Your task to perform on an android device: turn on priority inbox in the gmail app Image 0: 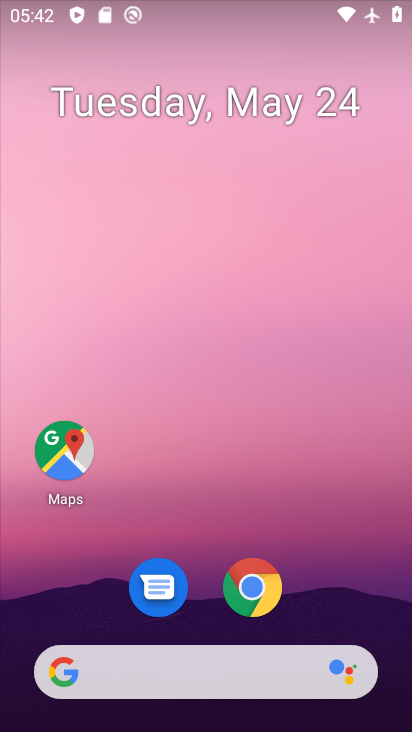
Step 0: drag from (346, 496) to (147, 1)
Your task to perform on an android device: turn on priority inbox in the gmail app Image 1: 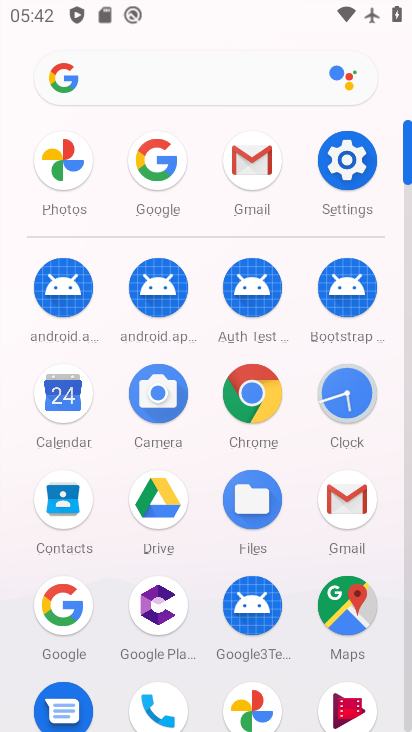
Step 1: click (253, 161)
Your task to perform on an android device: turn on priority inbox in the gmail app Image 2: 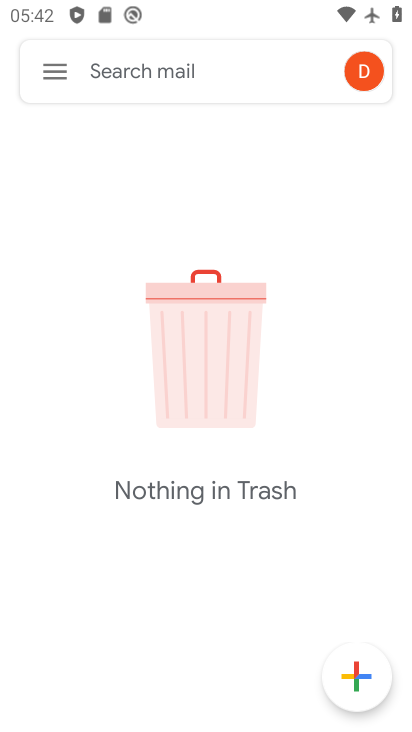
Step 2: click (40, 85)
Your task to perform on an android device: turn on priority inbox in the gmail app Image 3: 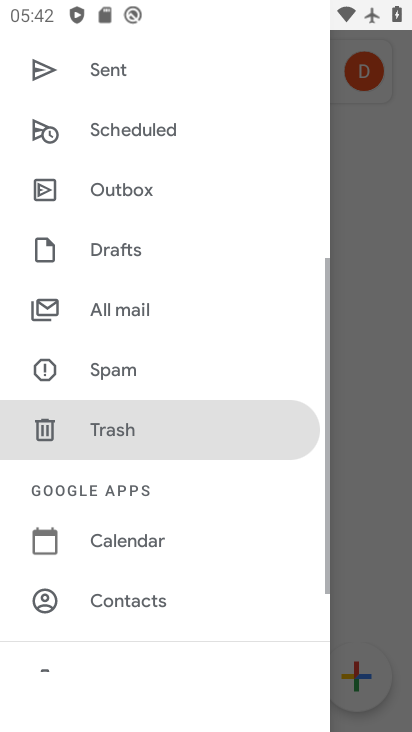
Step 3: drag from (193, 288) to (174, 95)
Your task to perform on an android device: turn on priority inbox in the gmail app Image 4: 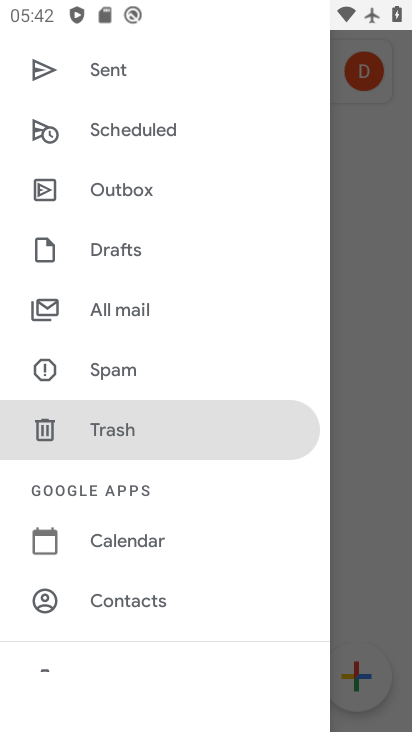
Step 4: drag from (150, 532) to (163, 84)
Your task to perform on an android device: turn on priority inbox in the gmail app Image 5: 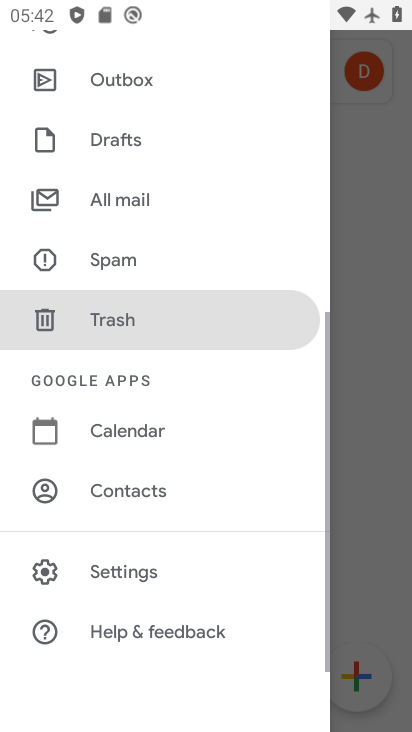
Step 5: click (144, 568)
Your task to perform on an android device: turn on priority inbox in the gmail app Image 6: 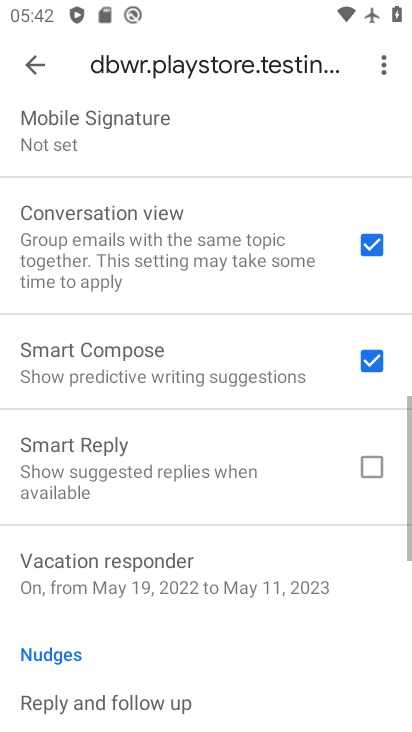
Step 6: drag from (133, 150) to (205, 720)
Your task to perform on an android device: turn on priority inbox in the gmail app Image 7: 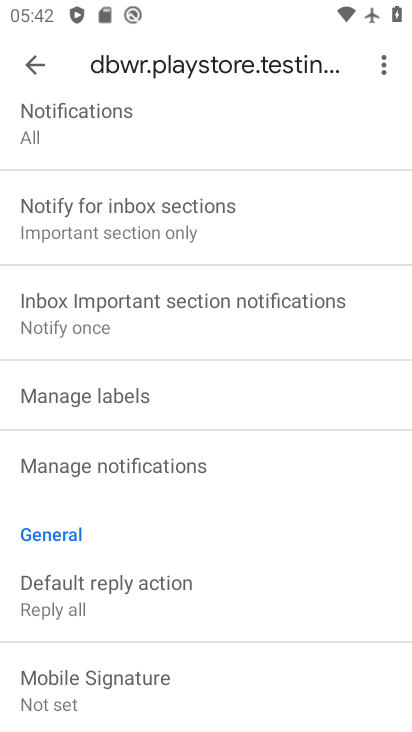
Step 7: drag from (156, 162) to (168, 707)
Your task to perform on an android device: turn on priority inbox in the gmail app Image 8: 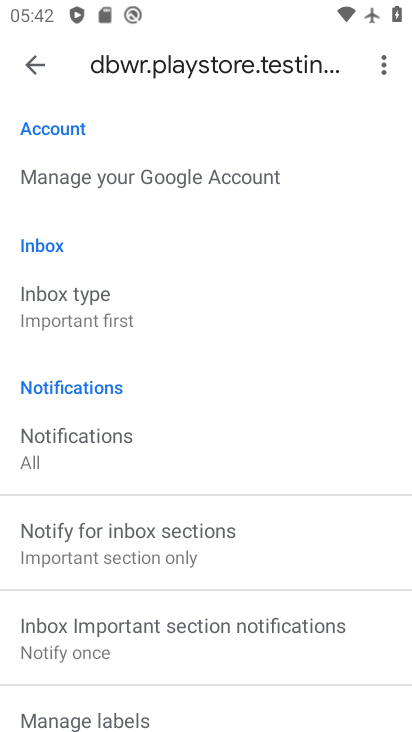
Step 8: click (109, 314)
Your task to perform on an android device: turn on priority inbox in the gmail app Image 9: 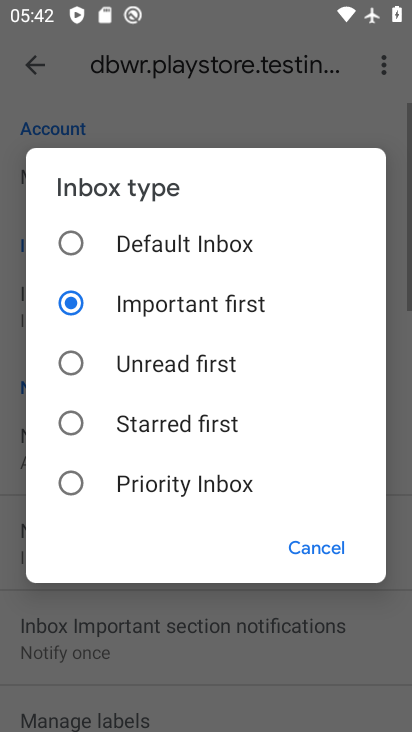
Step 9: click (161, 483)
Your task to perform on an android device: turn on priority inbox in the gmail app Image 10: 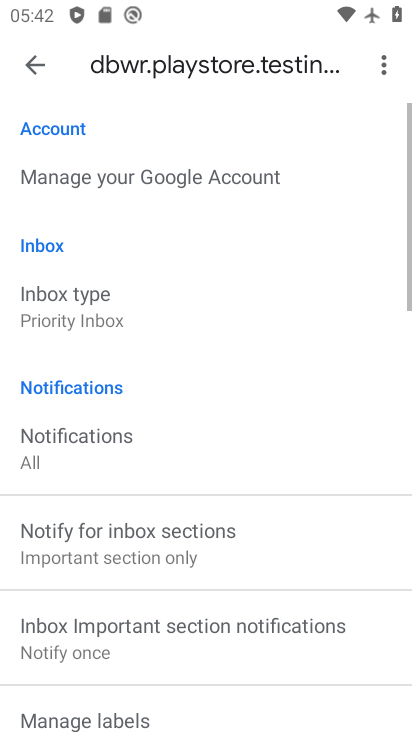
Step 10: task complete